Your task to perform on an android device: Go to Amazon Image 0: 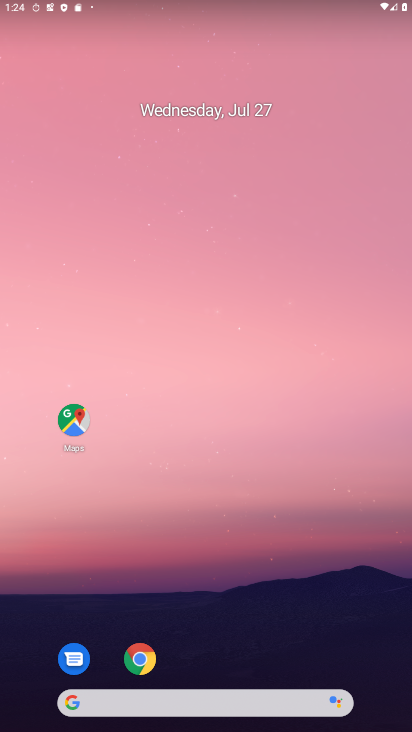
Step 0: press home button
Your task to perform on an android device: Go to Amazon Image 1: 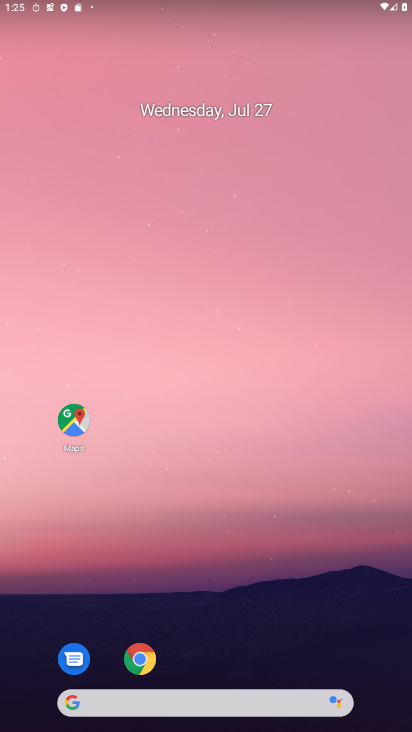
Step 1: click (149, 669)
Your task to perform on an android device: Go to Amazon Image 2: 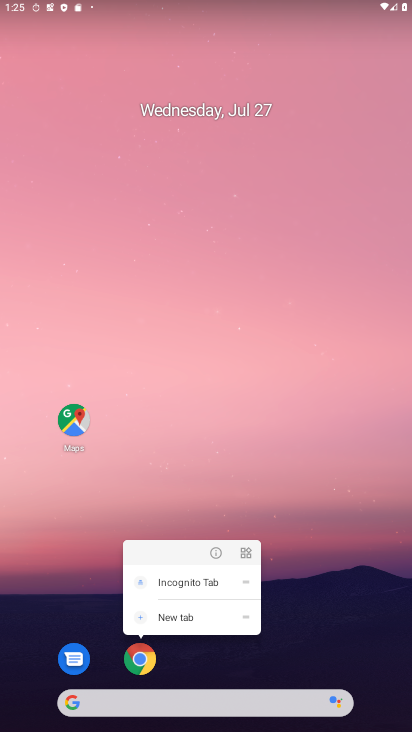
Step 2: click (137, 653)
Your task to perform on an android device: Go to Amazon Image 3: 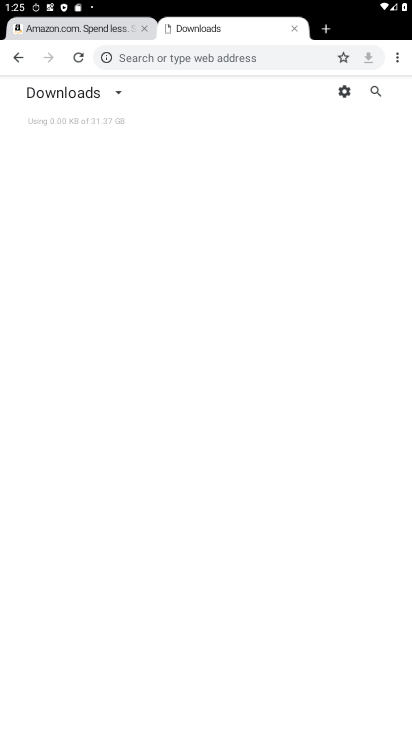
Step 3: click (130, 55)
Your task to perform on an android device: Go to Amazon Image 4: 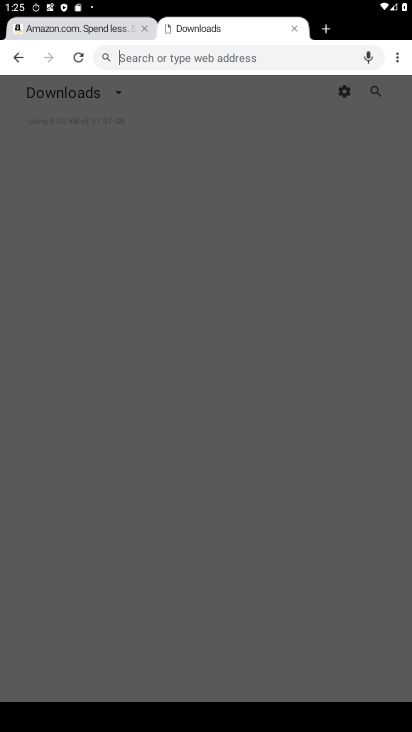
Step 4: type "Amazon"
Your task to perform on an android device: Go to Amazon Image 5: 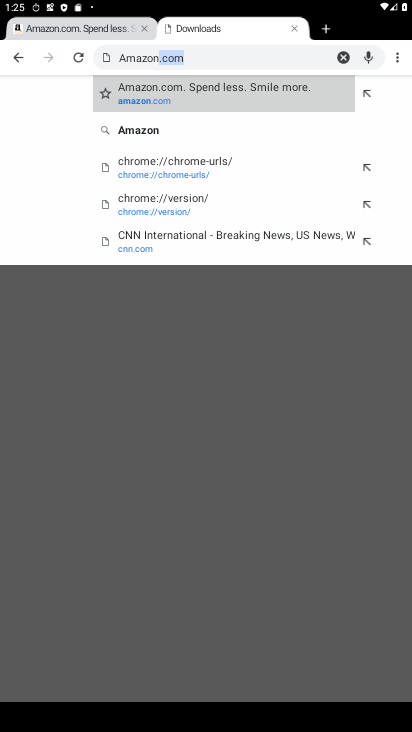
Step 5: type ""
Your task to perform on an android device: Go to Amazon Image 6: 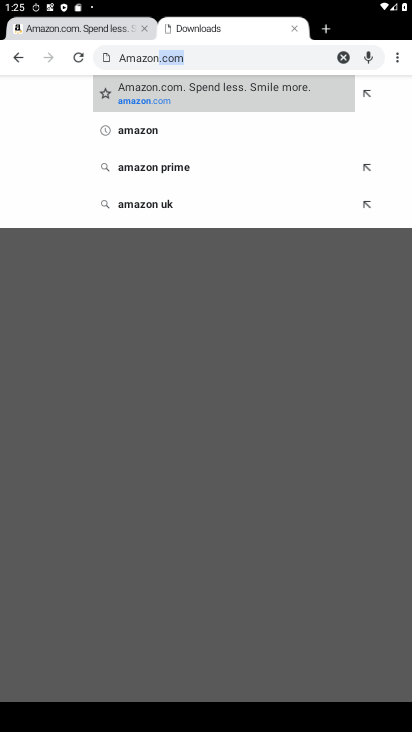
Step 6: click (164, 85)
Your task to perform on an android device: Go to Amazon Image 7: 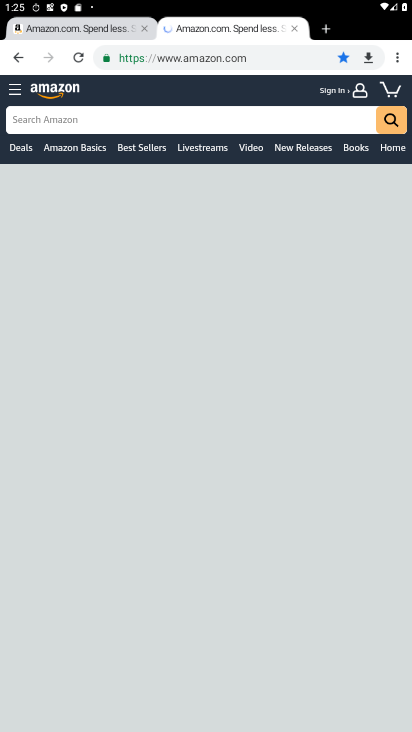
Step 7: task complete